Your task to perform on an android device: Check the news Image 0: 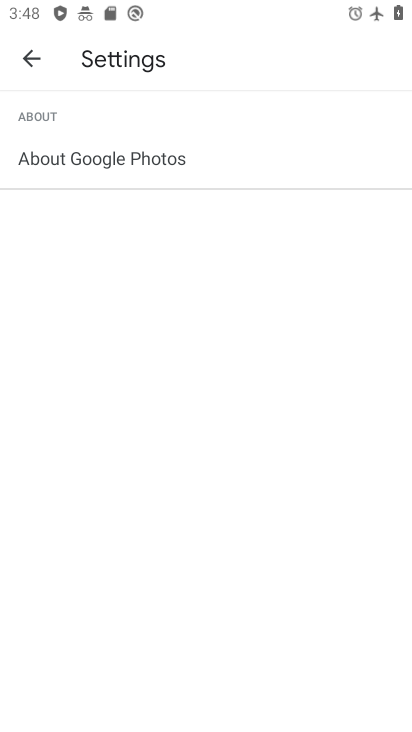
Step 0: press home button
Your task to perform on an android device: Check the news Image 1: 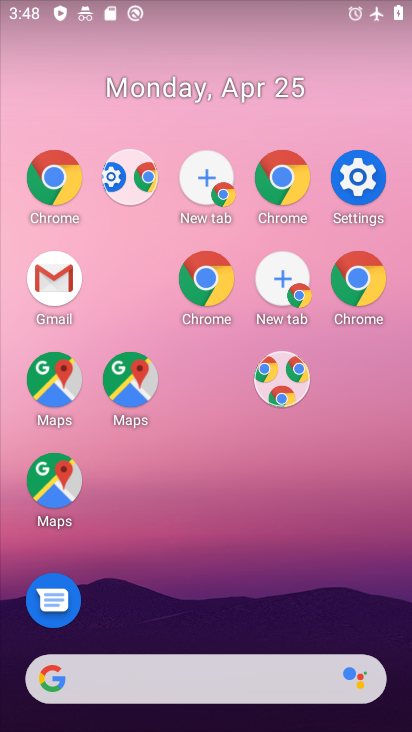
Step 1: task complete